Your task to perform on an android device: open device folders in google photos Image 0: 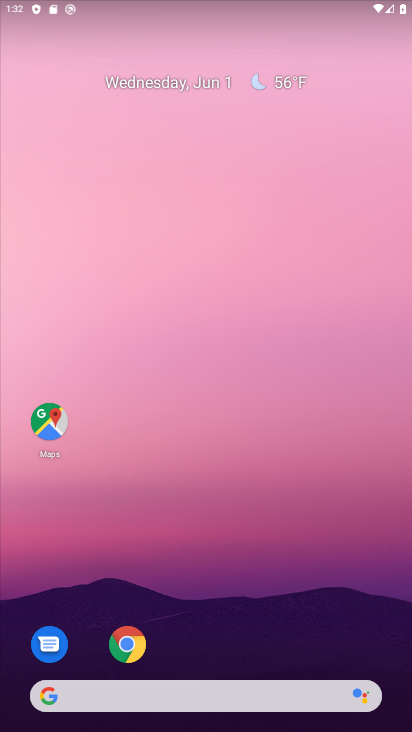
Step 0: drag from (264, 520) to (153, 8)
Your task to perform on an android device: open device folders in google photos Image 1: 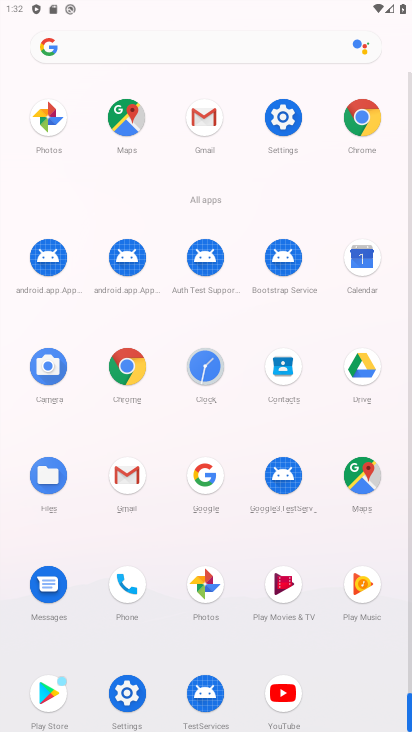
Step 1: drag from (10, 506) to (9, 236)
Your task to perform on an android device: open device folders in google photos Image 2: 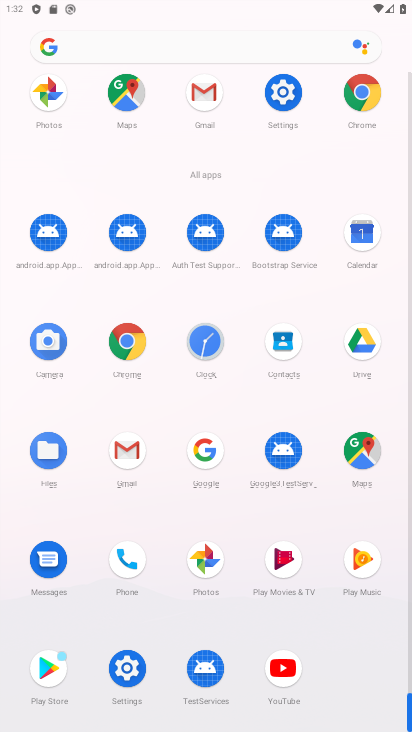
Step 2: drag from (19, 529) to (38, 204)
Your task to perform on an android device: open device folders in google photos Image 3: 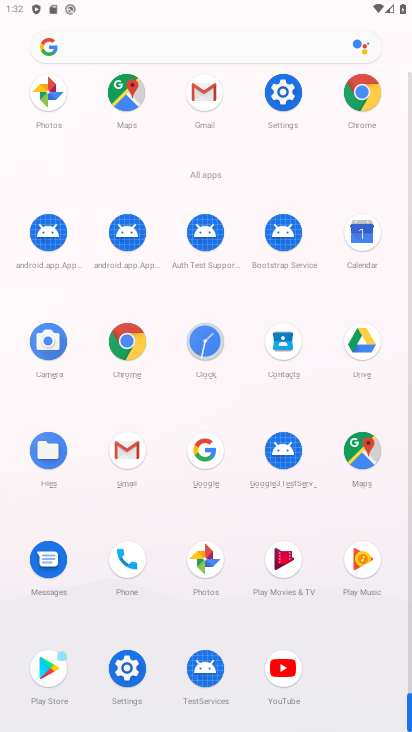
Step 3: click (202, 555)
Your task to perform on an android device: open device folders in google photos Image 4: 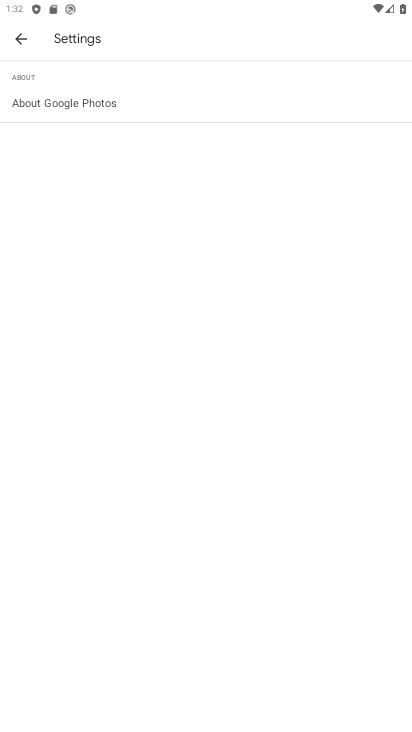
Step 4: click (22, 41)
Your task to perform on an android device: open device folders in google photos Image 5: 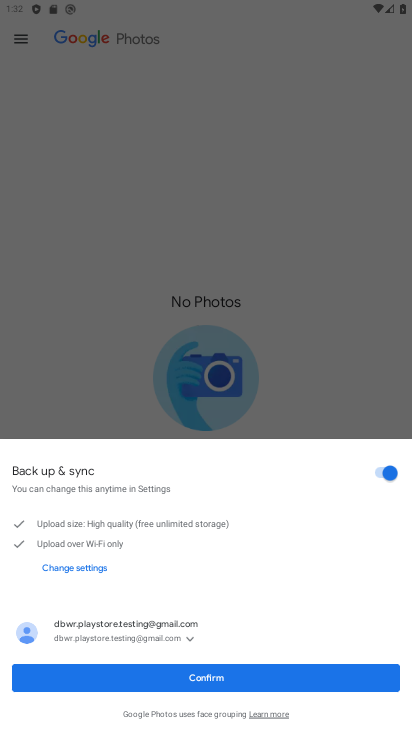
Step 5: click (190, 678)
Your task to perform on an android device: open device folders in google photos Image 6: 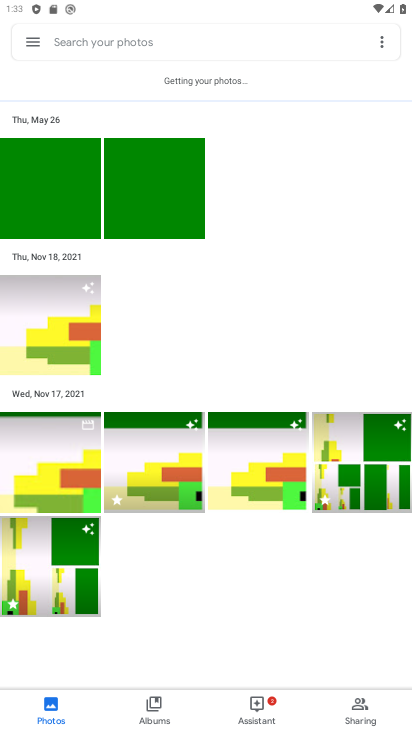
Step 6: click (34, 38)
Your task to perform on an android device: open device folders in google photos Image 7: 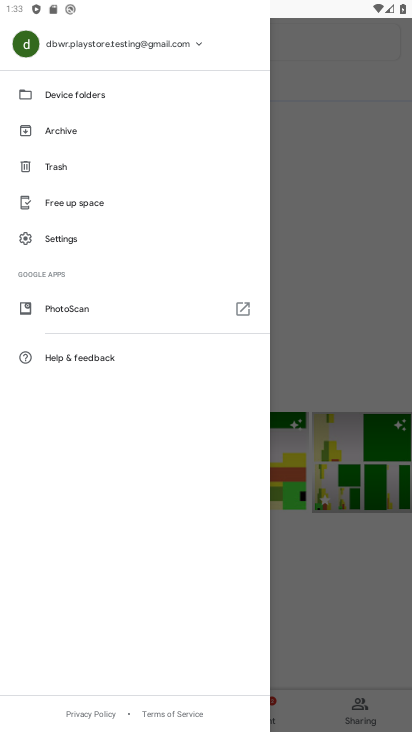
Step 7: click (74, 98)
Your task to perform on an android device: open device folders in google photos Image 8: 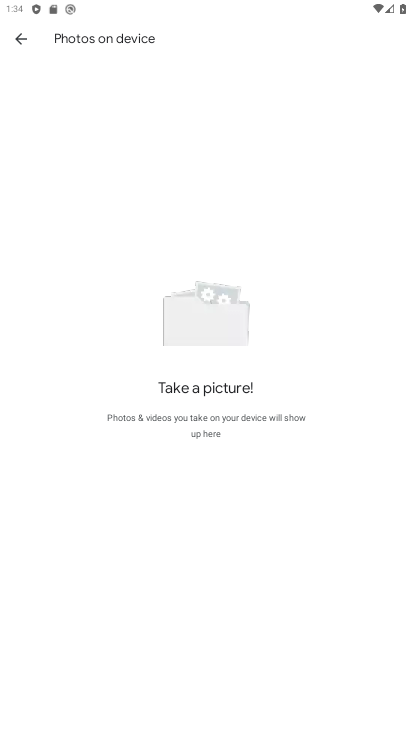
Step 8: click (34, 37)
Your task to perform on an android device: open device folders in google photos Image 9: 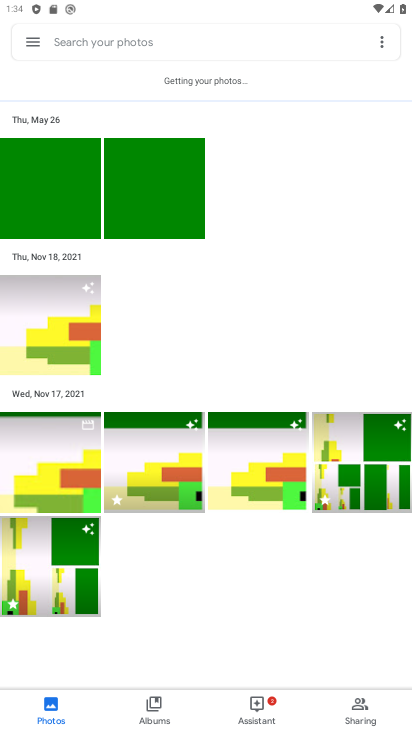
Step 9: click (44, 35)
Your task to perform on an android device: open device folders in google photos Image 10: 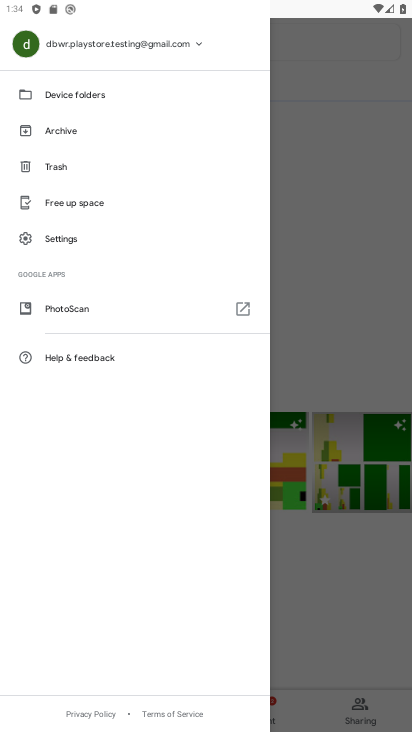
Step 10: click (85, 96)
Your task to perform on an android device: open device folders in google photos Image 11: 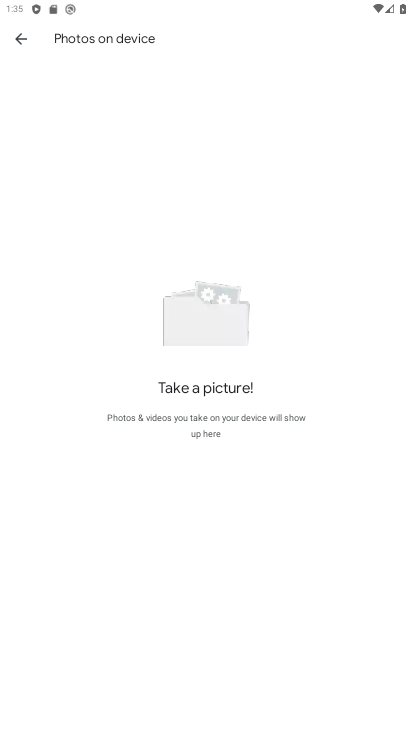
Step 11: task complete